Your task to perform on an android device: see sites visited before in the chrome app Image 0: 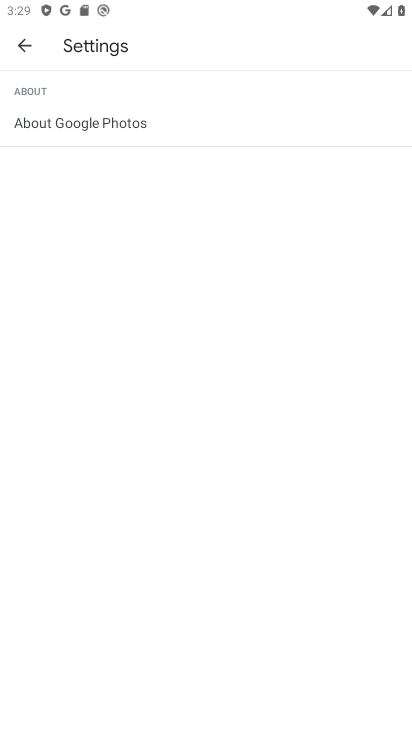
Step 0: click (23, 41)
Your task to perform on an android device: see sites visited before in the chrome app Image 1: 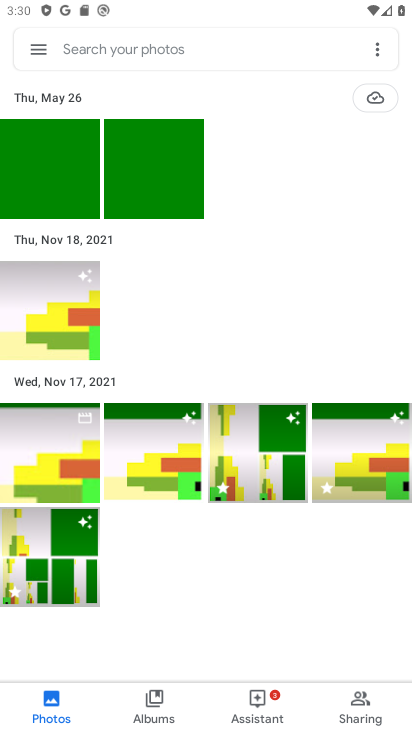
Step 1: press back button
Your task to perform on an android device: see sites visited before in the chrome app Image 2: 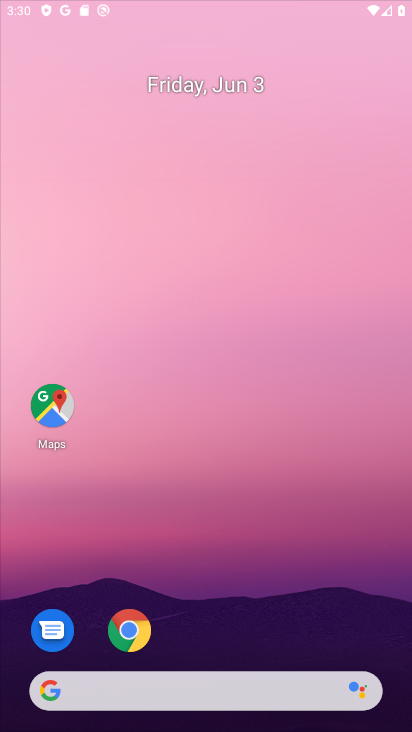
Step 2: drag from (249, 619) to (203, 52)
Your task to perform on an android device: see sites visited before in the chrome app Image 3: 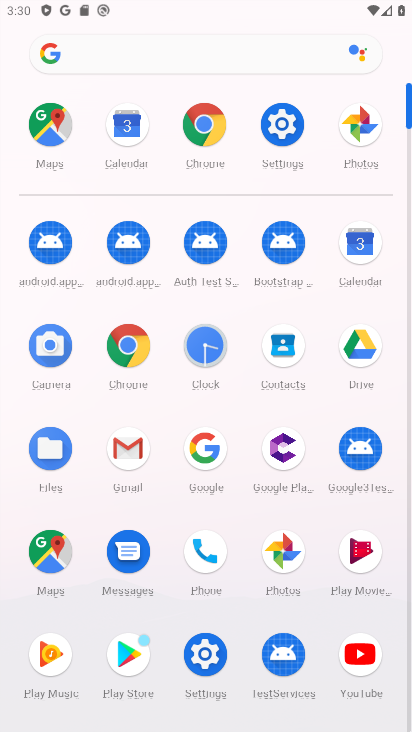
Step 3: click (119, 325)
Your task to perform on an android device: see sites visited before in the chrome app Image 4: 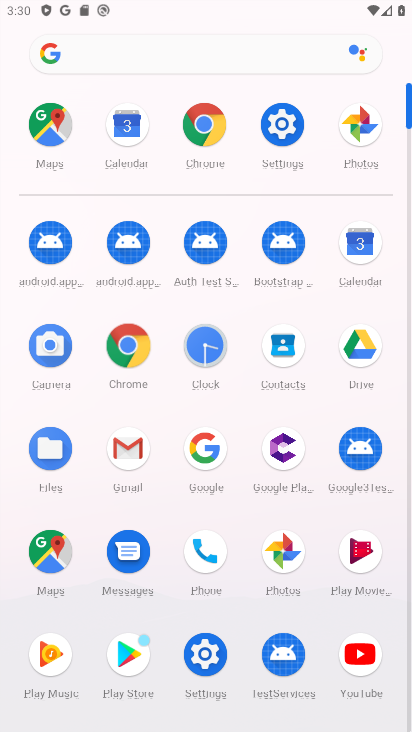
Step 4: click (121, 330)
Your task to perform on an android device: see sites visited before in the chrome app Image 5: 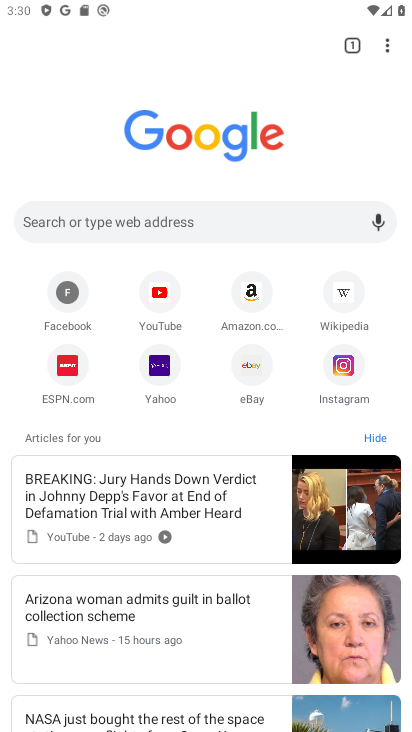
Step 5: drag from (385, 41) to (229, 217)
Your task to perform on an android device: see sites visited before in the chrome app Image 6: 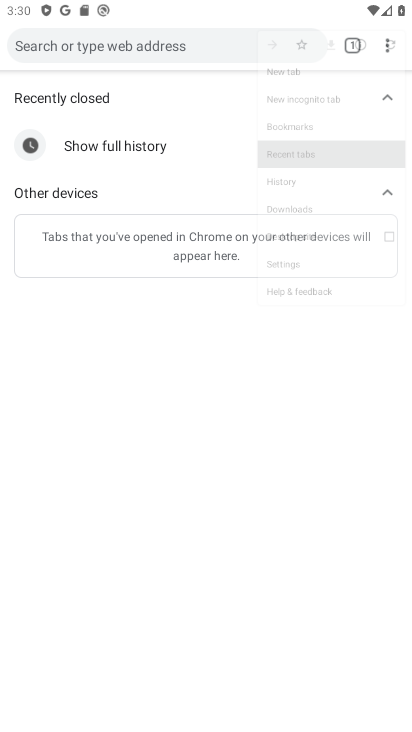
Step 6: click (228, 218)
Your task to perform on an android device: see sites visited before in the chrome app Image 7: 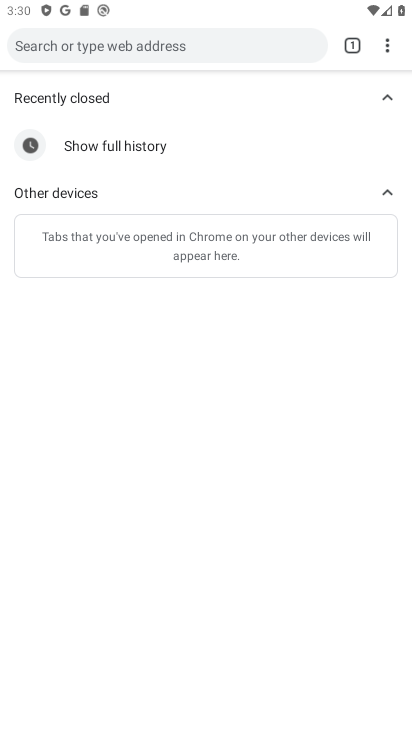
Step 7: task complete